Your task to perform on an android device: remove spam from my inbox in the gmail app Image 0: 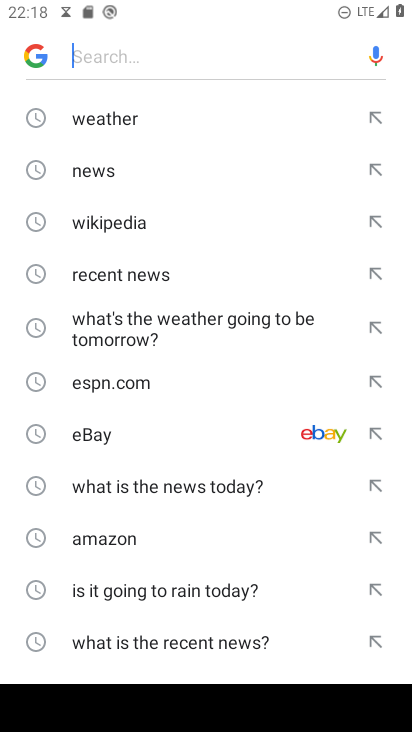
Step 0: press back button
Your task to perform on an android device: remove spam from my inbox in the gmail app Image 1: 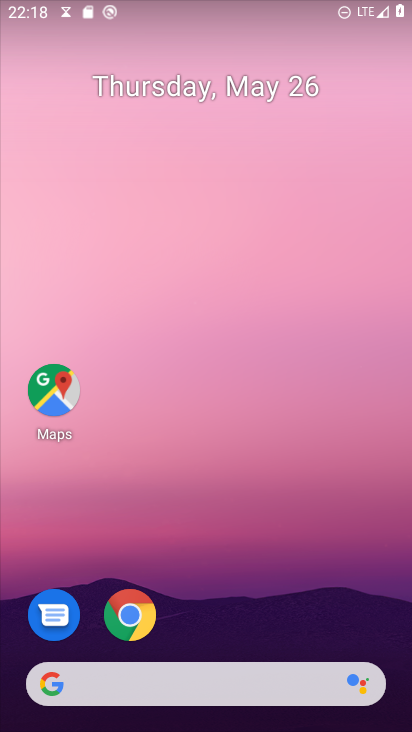
Step 1: drag from (246, 462) to (243, 212)
Your task to perform on an android device: remove spam from my inbox in the gmail app Image 2: 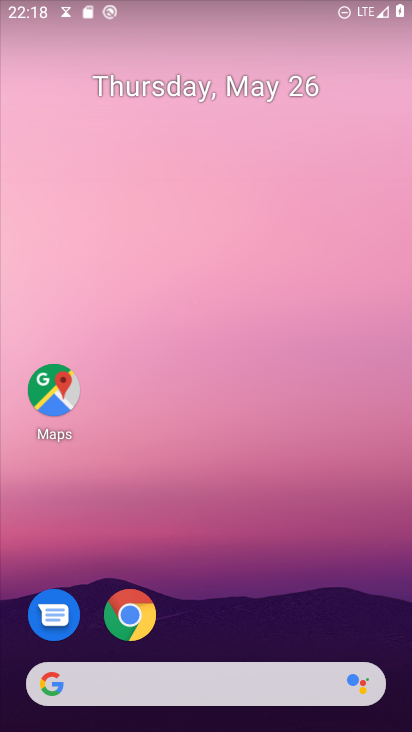
Step 2: drag from (223, 619) to (238, 264)
Your task to perform on an android device: remove spam from my inbox in the gmail app Image 3: 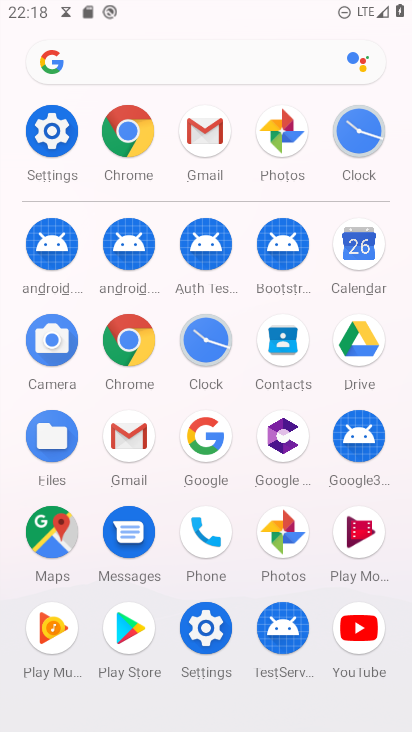
Step 3: click (212, 134)
Your task to perform on an android device: remove spam from my inbox in the gmail app Image 4: 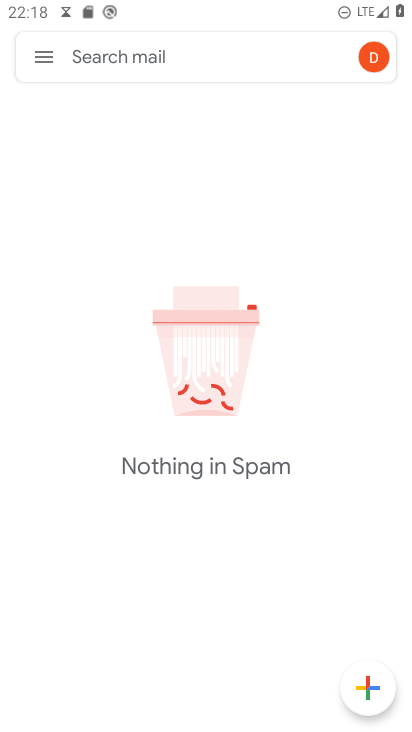
Step 4: click (42, 48)
Your task to perform on an android device: remove spam from my inbox in the gmail app Image 5: 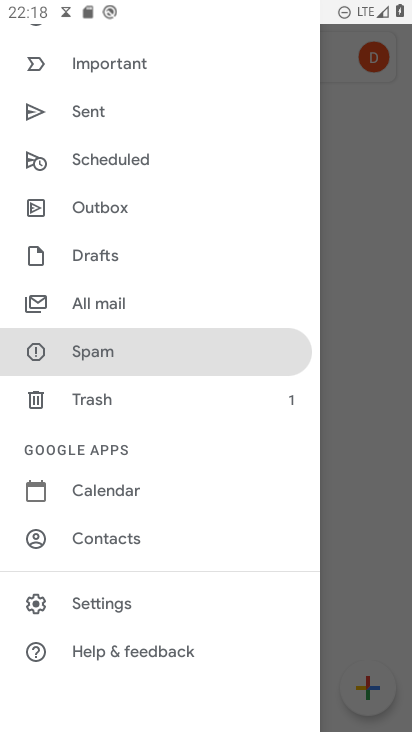
Step 5: click (113, 354)
Your task to perform on an android device: remove spam from my inbox in the gmail app Image 6: 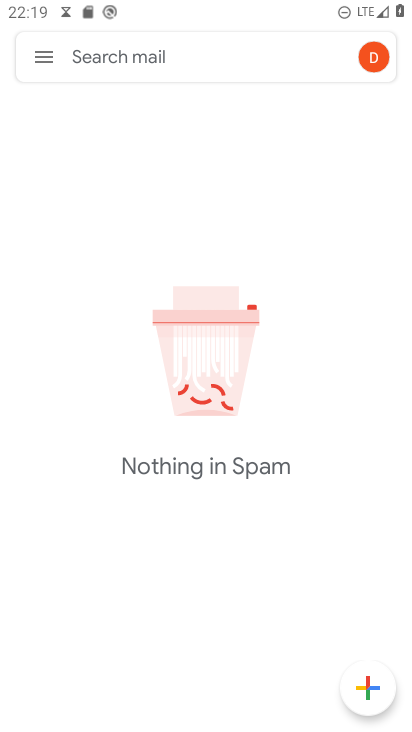
Step 6: click (45, 52)
Your task to perform on an android device: remove spam from my inbox in the gmail app Image 7: 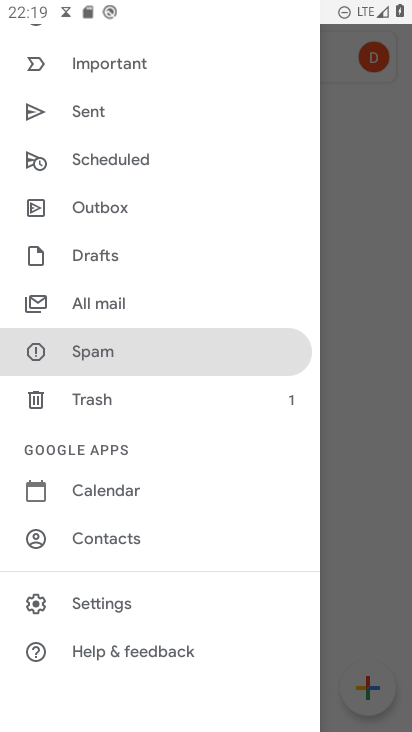
Step 7: task complete